Your task to perform on an android device: Open Chrome and go to the settings page Image 0: 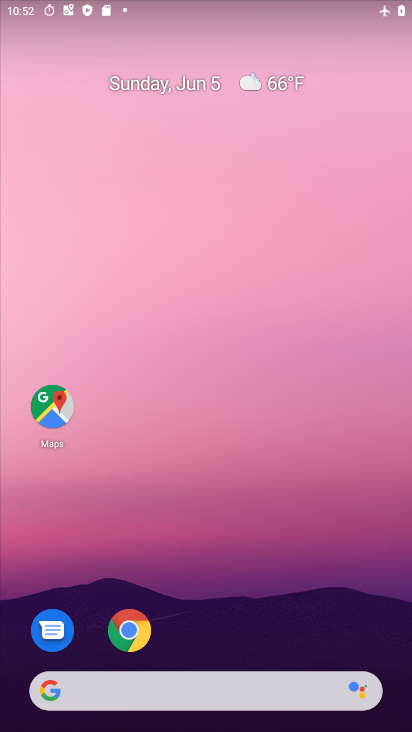
Step 0: click (129, 631)
Your task to perform on an android device: Open Chrome and go to the settings page Image 1: 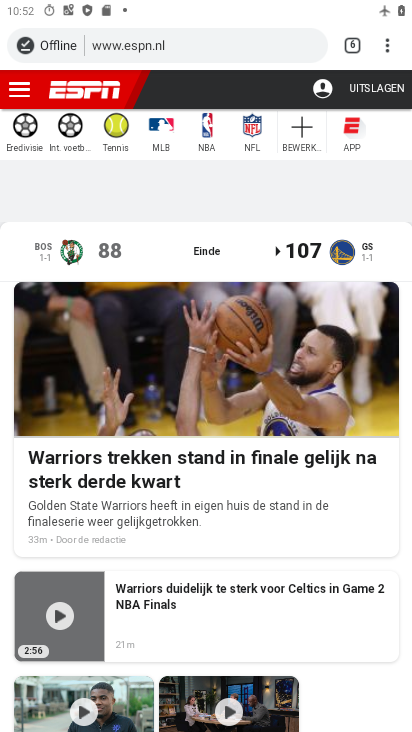
Step 1: click (389, 50)
Your task to perform on an android device: Open Chrome and go to the settings page Image 2: 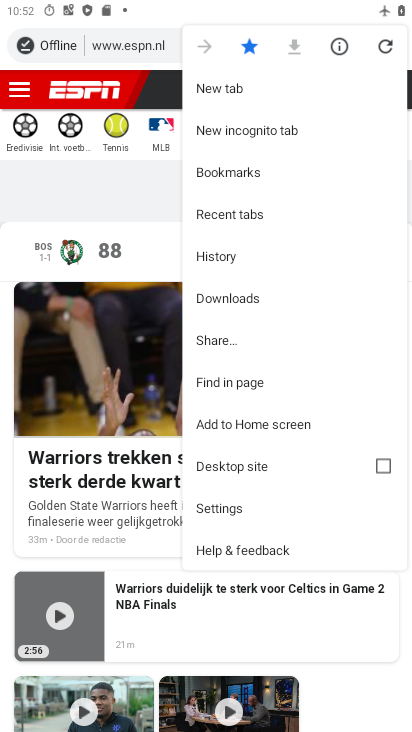
Step 2: click (227, 504)
Your task to perform on an android device: Open Chrome and go to the settings page Image 3: 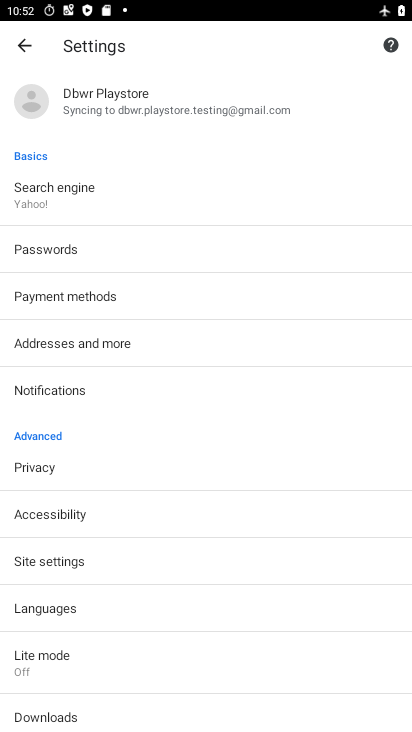
Step 3: task complete